Your task to perform on an android device: refresh tabs in the chrome app Image 0: 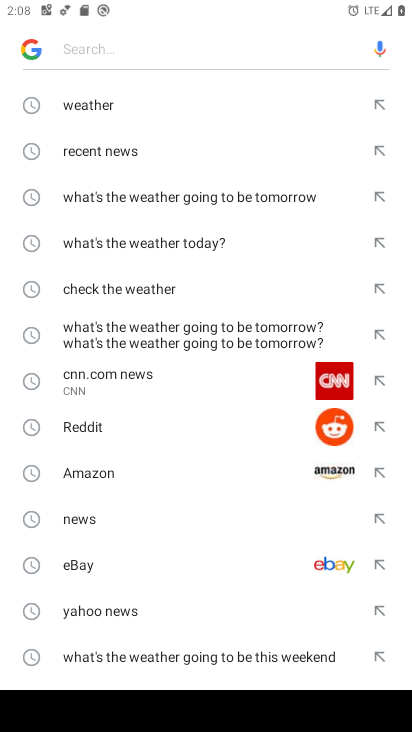
Step 0: press home button
Your task to perform on an android device: refresh tabs in the chrome app Image 1: 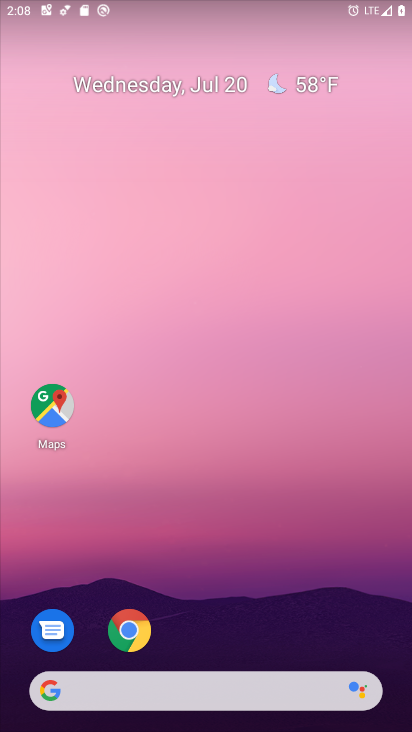
Step 1: drag from (171, 620) to (263, 127)
Your task to perform on an android device: refresh tabs in the chrome app Image 2: 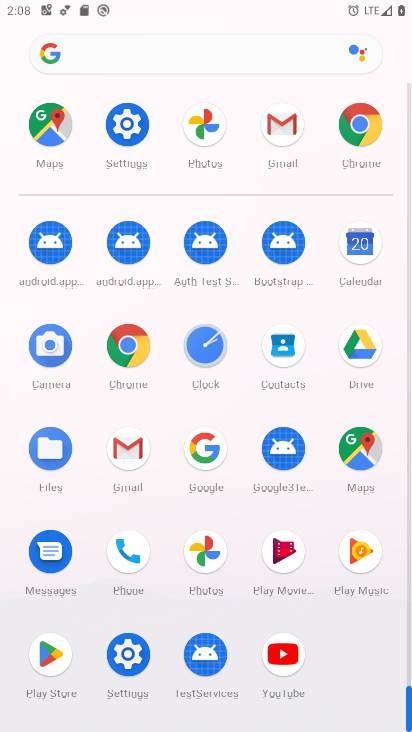
Step 2: click (378, 139)
Your task to perform on an android device: refresh tabs in the chrome app Image 3: 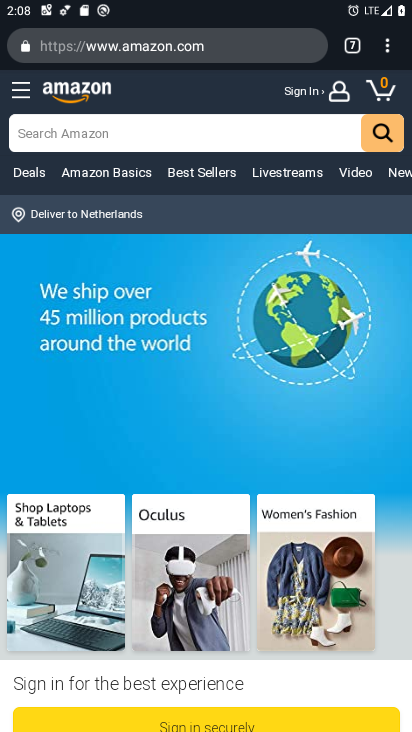
Step 3: click (393, 51)
Your task to perform on an android device: refresh tabs in the chrome app Image 4: 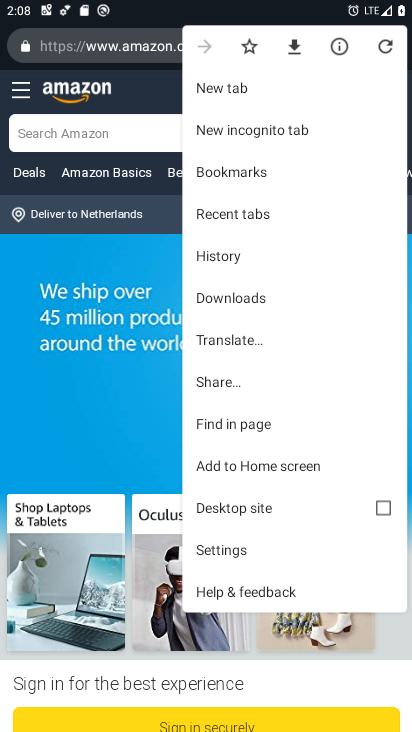
Step 4: click (386, 47)
Your task to perform on an android device: refresh tabs in the chrome app Image 5: 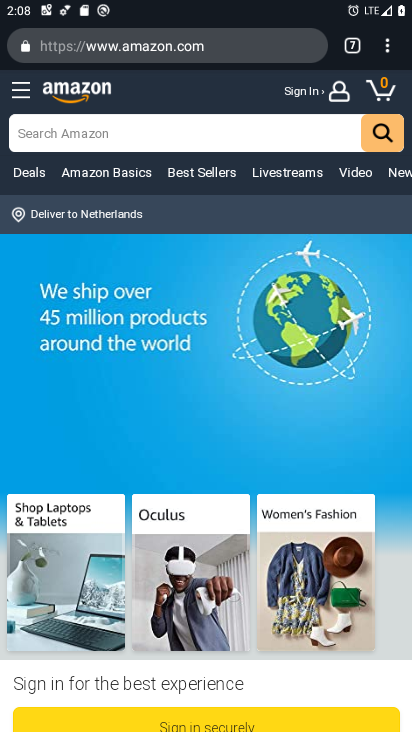
Step 5: task complete